Your task to perform on an android device: change the clock style Image 0: 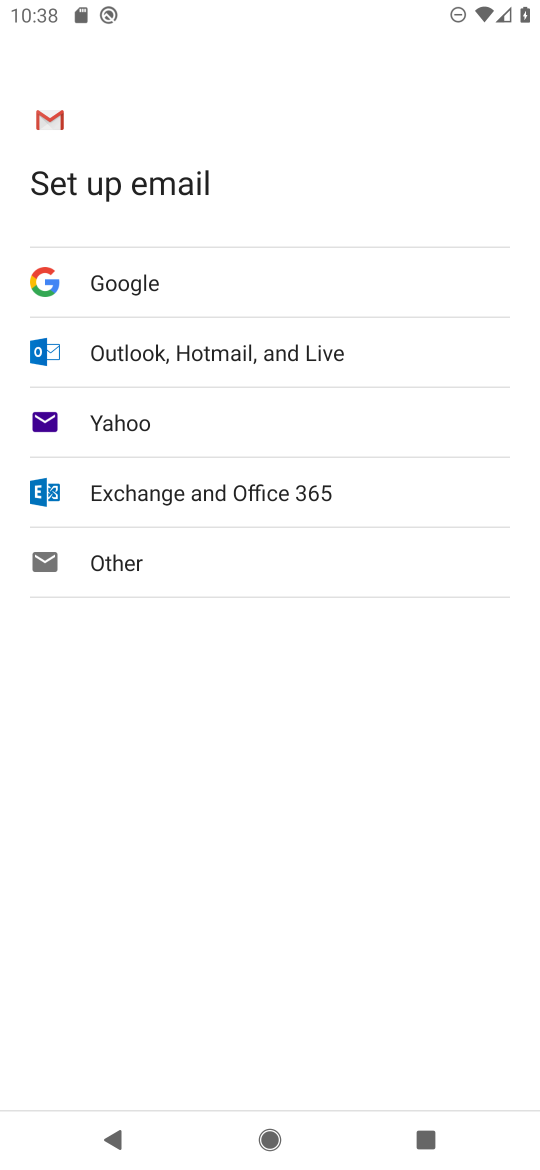
Step 0: press home button
Your task to perform on an android device: change the clock style Image 1: 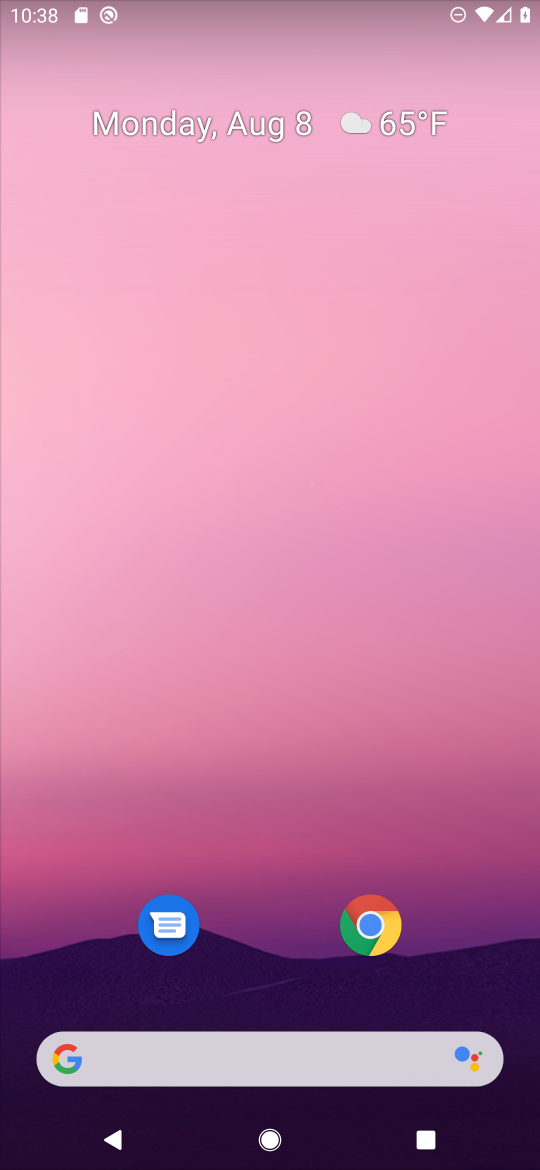
Step 1: drag from (265, 908) to (401, 125)
Your task to perform on an android device: change the clock style Image 2: 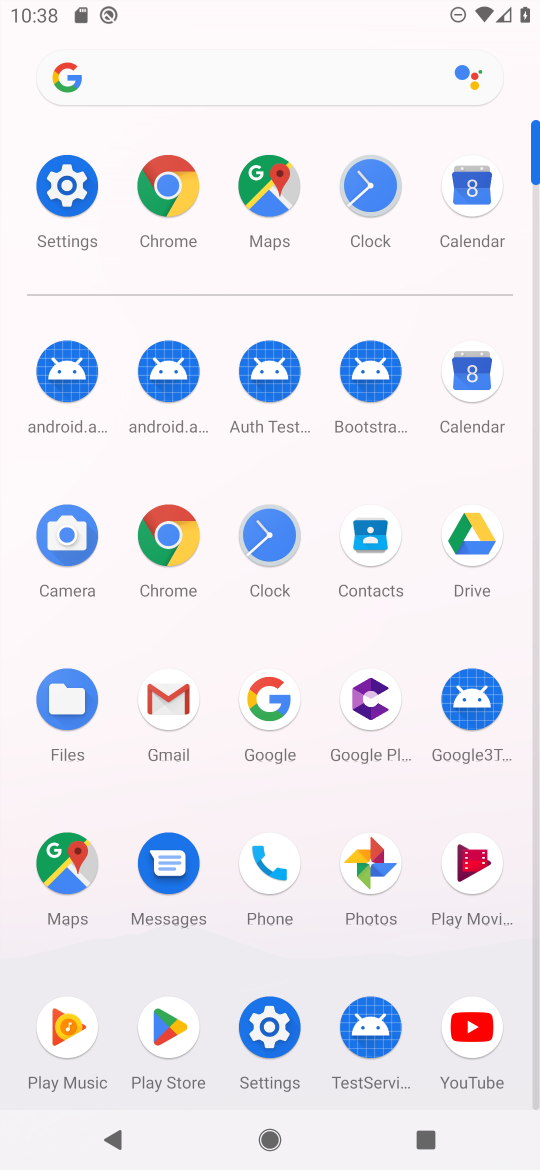
Step 2: click (262, 541)
Your task to perform on an android device: change the clock style Image 3: 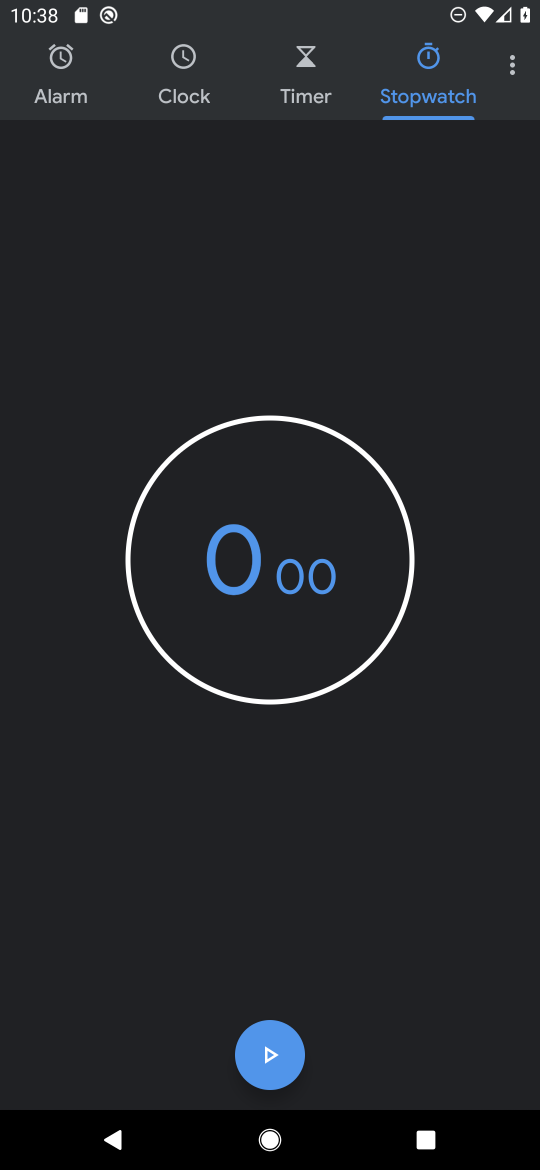
Step 3: click (508, 59)
Your task to perform on an android device: change the clock style Image 4: 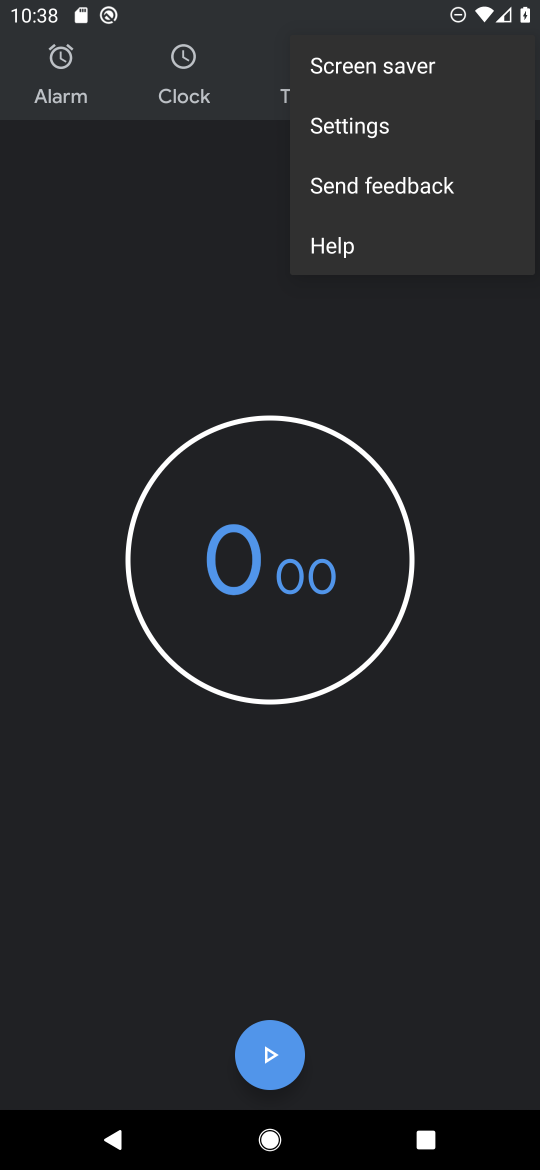
Step 4: click (367, 153)
Your task to perform on an android device: change the clock style Image 5: 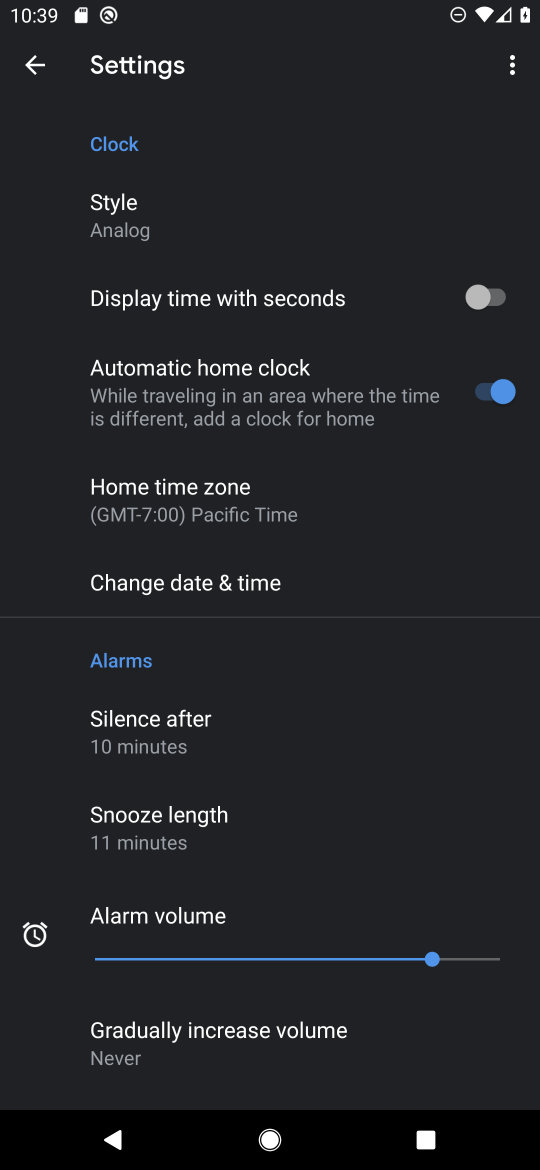
Step 5: click (134, 234)
Your task to perform on an android device: change the clock style Image 6: 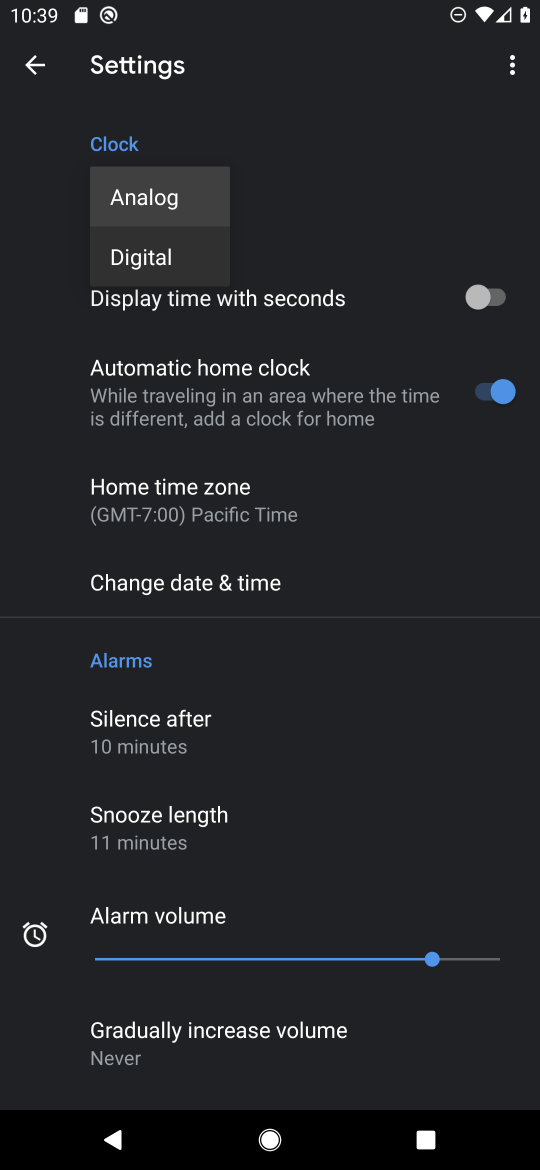
Step 6: click (153, 262)
Your task to perform on an android device: change the clock style Image 7: 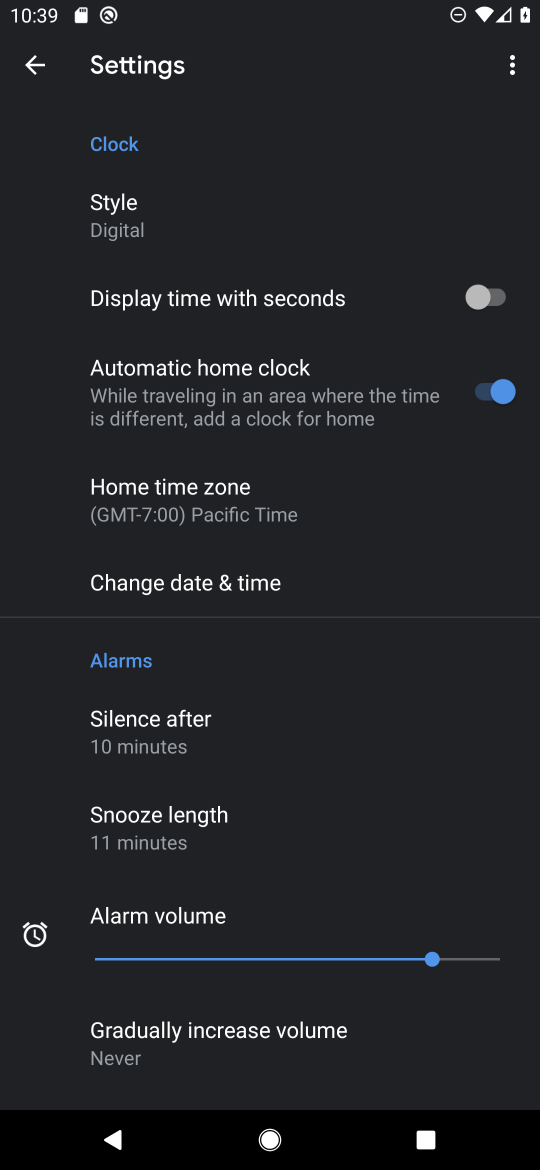
Step 7: task complete